Your task to perform on an android device: Open maps Image 0: 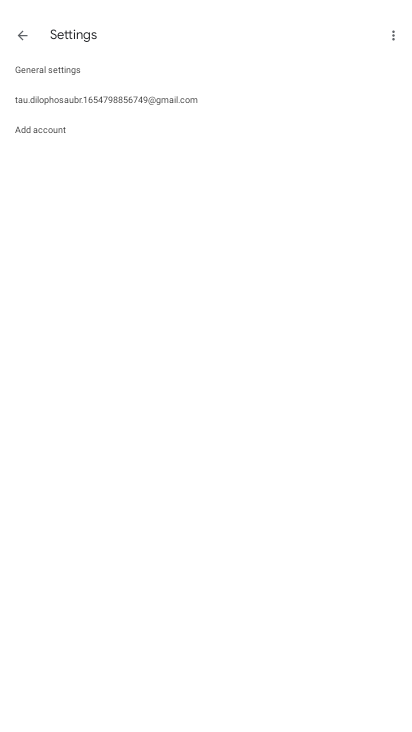
Step 0: press home button
Your task to perform on an android device: Open maps Image 1: 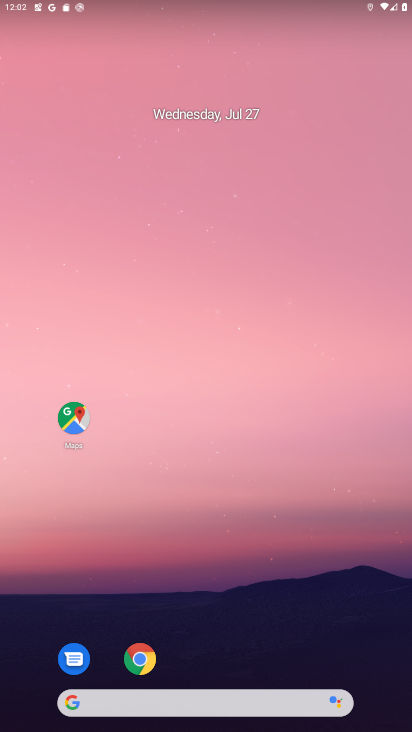
Step 1: drag from (278, 684) to (274, 2)
Your task to perform on an android device: Open maps Image 2: 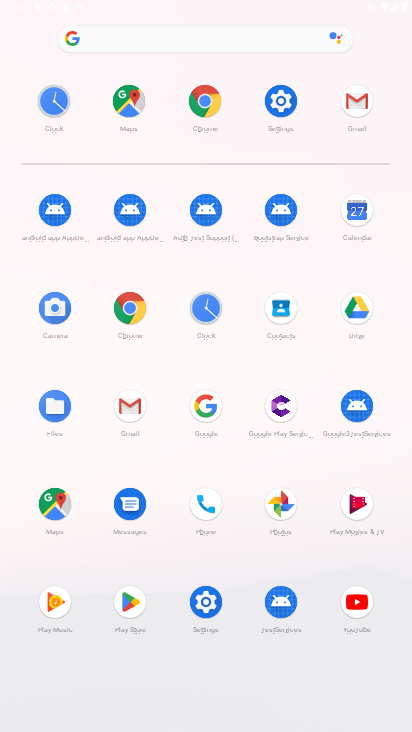
Step 2: click (54, 500)
Your task to perform on an android device: Open maps Image 3: 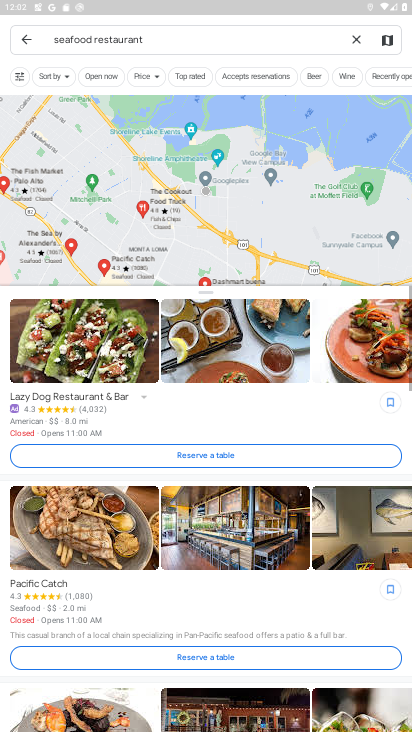
Step 3: task complete